Your task to perform on an android device: Go to accessibility settings Image 0: 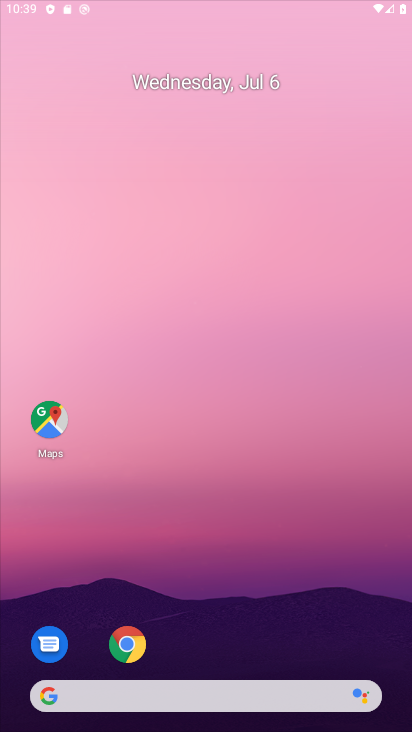
Step 0: click (160, 127)
Your task to perform on an android device: Go to accessibility settings Image 1: 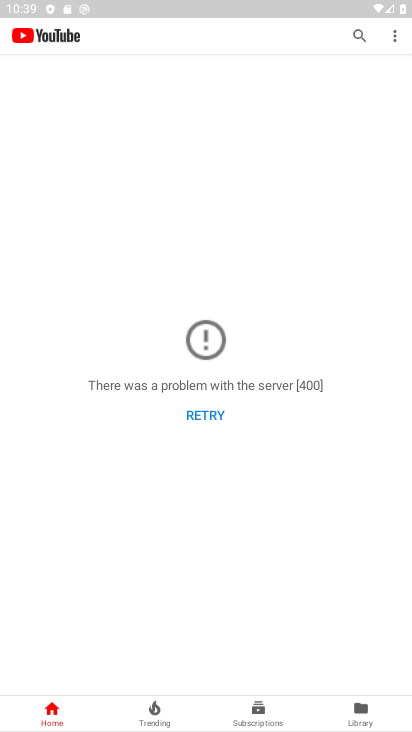
Step 1: press home button
Your task to perform on an android device: Go to accessibility settings Image 2: 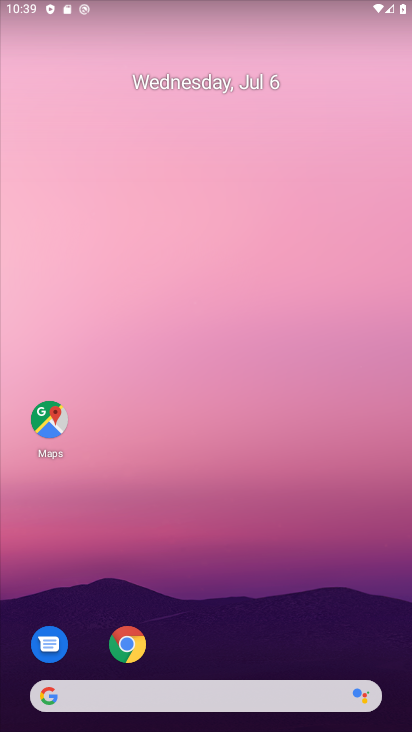
Step 2: drag from (252, 633) to (218, 160)
Your task to perform on an android device: Go to accessibility settings Image 3: 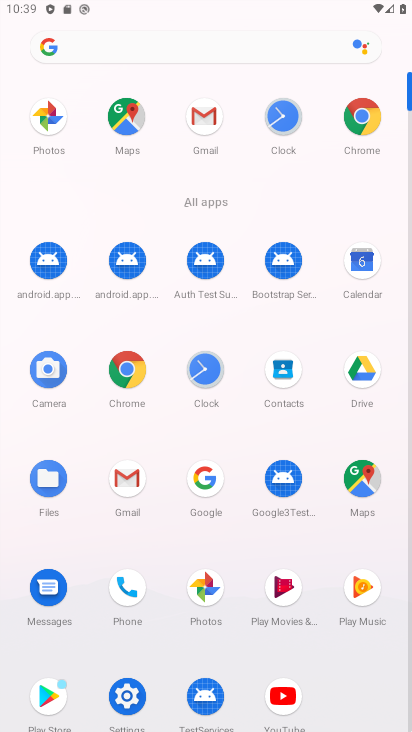
Step 3: click (133, 704)
Your task to perform on an android device: Go to accessibility settings Image 4: 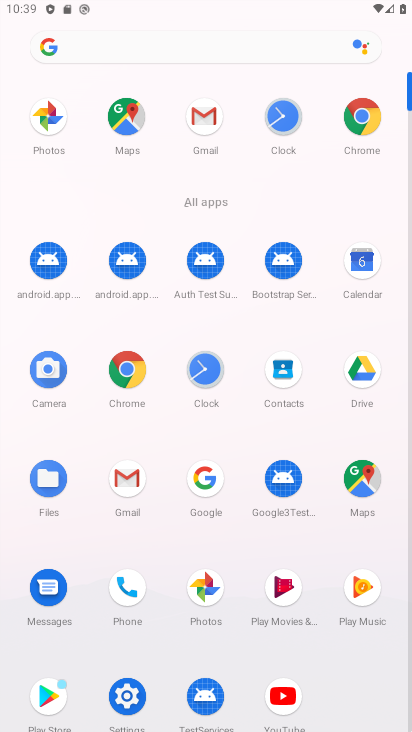
Step 4: click (126, 698)
Your task to perform on an android device: Go to accessibility settings Image 5: 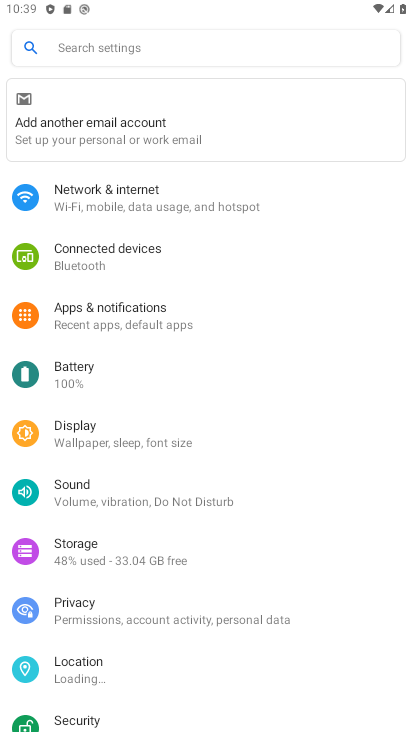
Step 5: drag from (271, 653) to (204, 203)
Your task to perform on an android device: Go to accessibility settings Image 6: 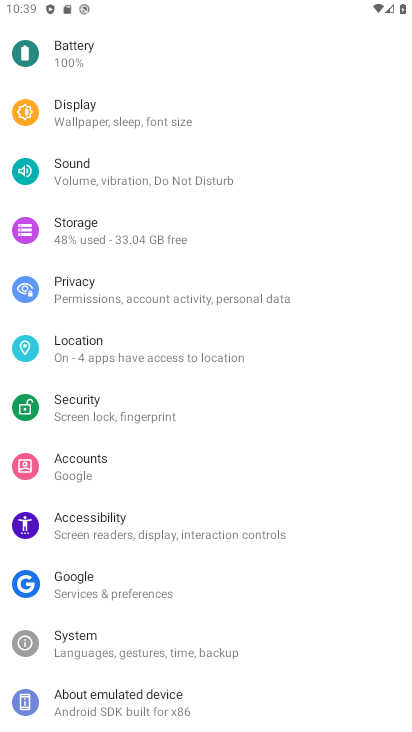
Step 6: click (198, 528)
Your task to perform on an android device: Go to accessibility settings Image 7: 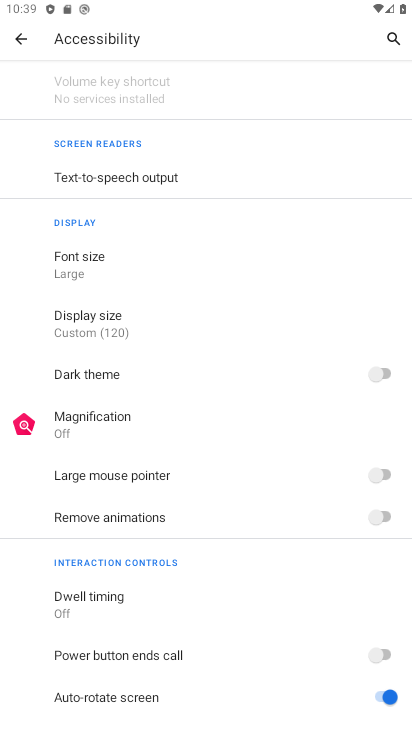
Step 7: task complete